Your task to perform on an android device: Open settings on Google Maps Image 0: 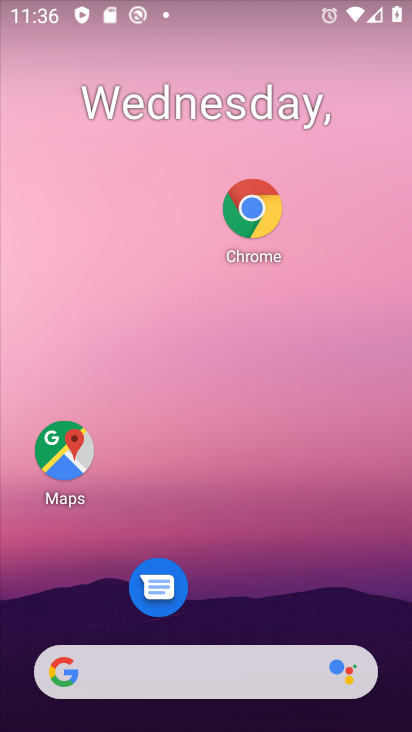
Step 0: click (63, 462)
Your task to perform on an android device: Open settings on Google Maps Image 1: 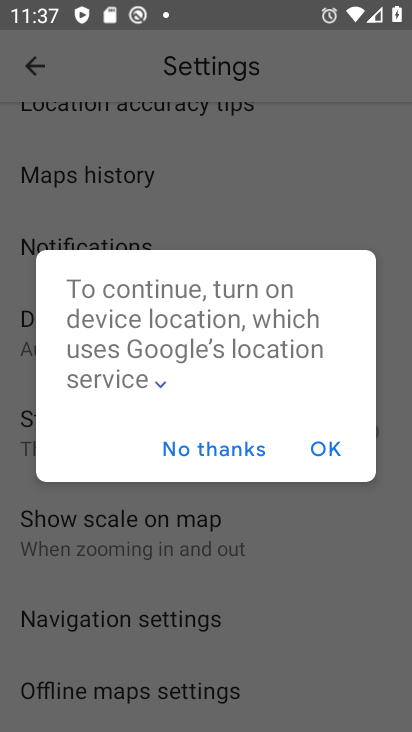
Step 1: click (239, 455)
Your task to perform on an android device: Open settings on Google Maps Image 2: 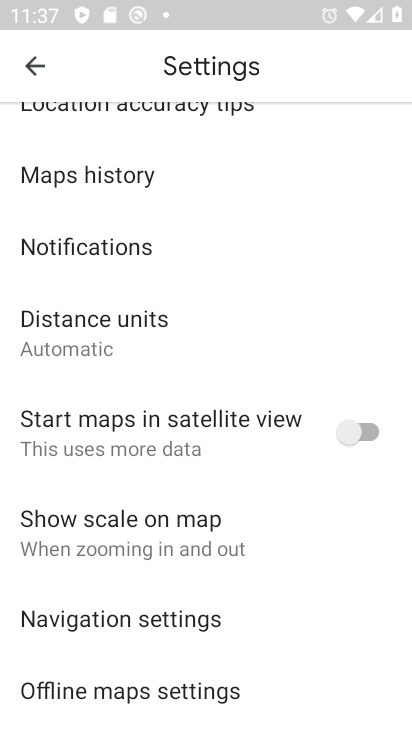
Step 2: click (33, 76)
Your task to perform on an android device: Open settings on Google Maps Image 3: 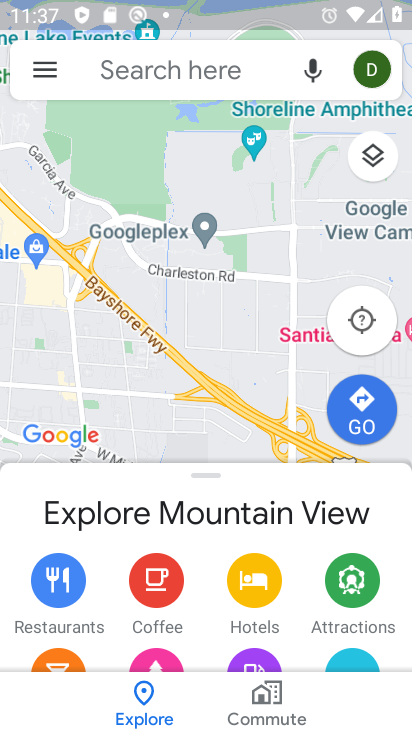
Step 3: click (43, 69)
Your task to perform on an android device: Open settings on Google Maps Image 4: 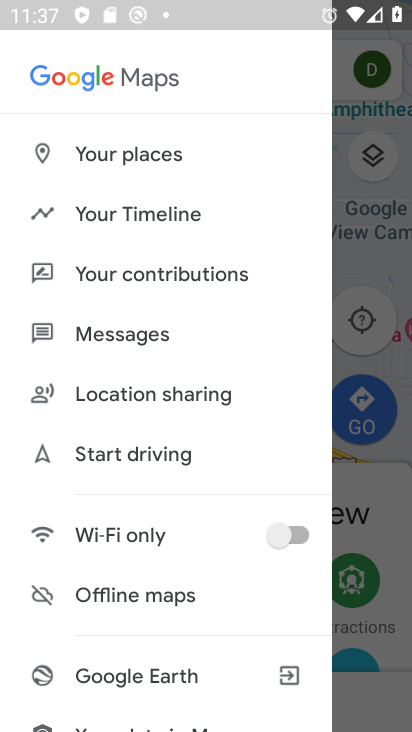
Step 4: drag from (143, 638) to (200, 233)
Your task to perform on an android device: Open settings on Google Maps Image 5: 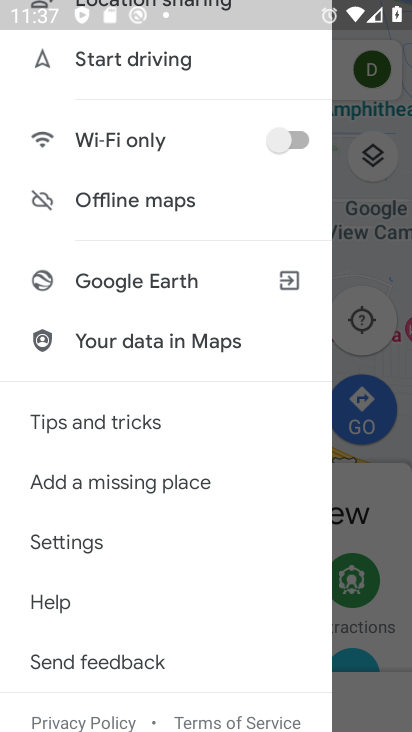
Step 5: click (96, 548)
Your task to perform on an android device: Open settings on Google Maps Image 6: 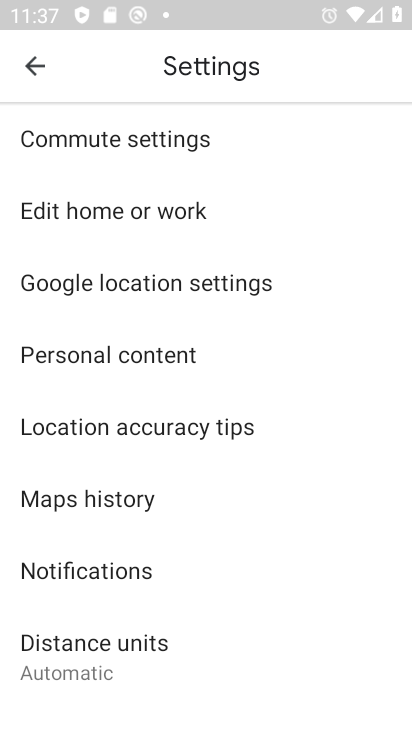
Step 6: task complete